Your task to perform on an android device: Clear the shopping cart on ebay.com. Search for "lenovo thinkpad" on ebay.com, select the first entry, add it to the cart, then select checkout. Image 0: 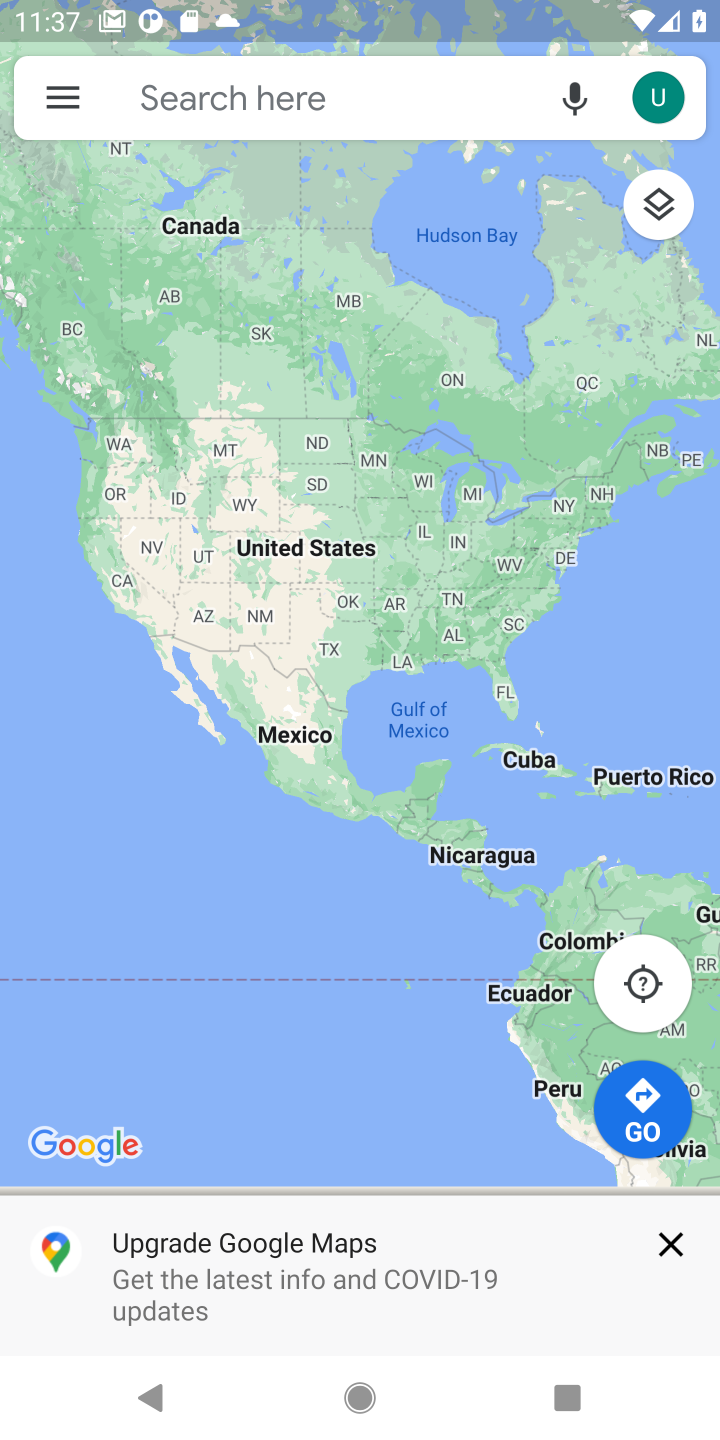
Step 0: press home button
Your task to perform on an android device: Clear the shopping cart on ebay.com. Search for "lenovo thinkpad" on ebay.com, select the first entry, add it to the cart, then select checkout. Image 1: 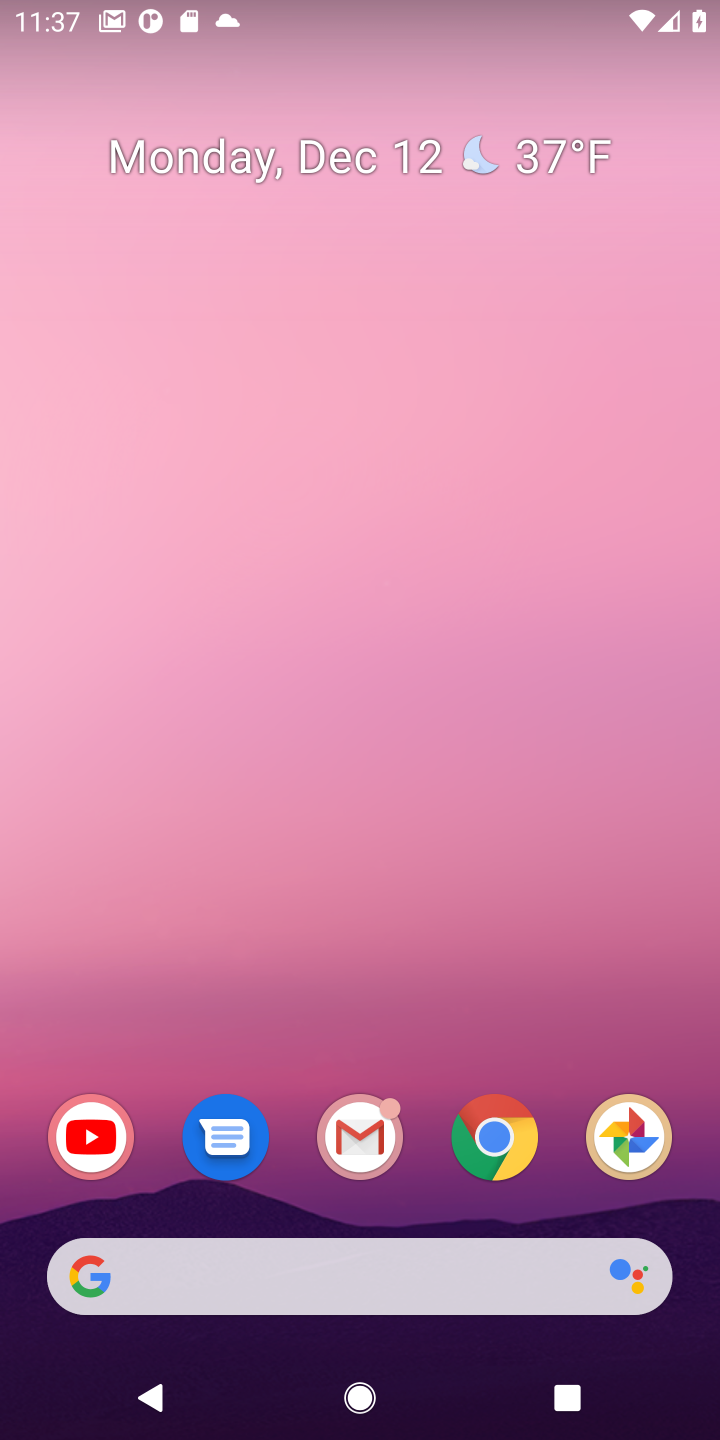
Step 1: click (371, 1289)
Your task to perform on an android device: Clear the shopping cart on ebay.com. Search for "lenovo thinkpad" on ebay.com, select the first entry, add it to the cart, then select checkout. Image 2: 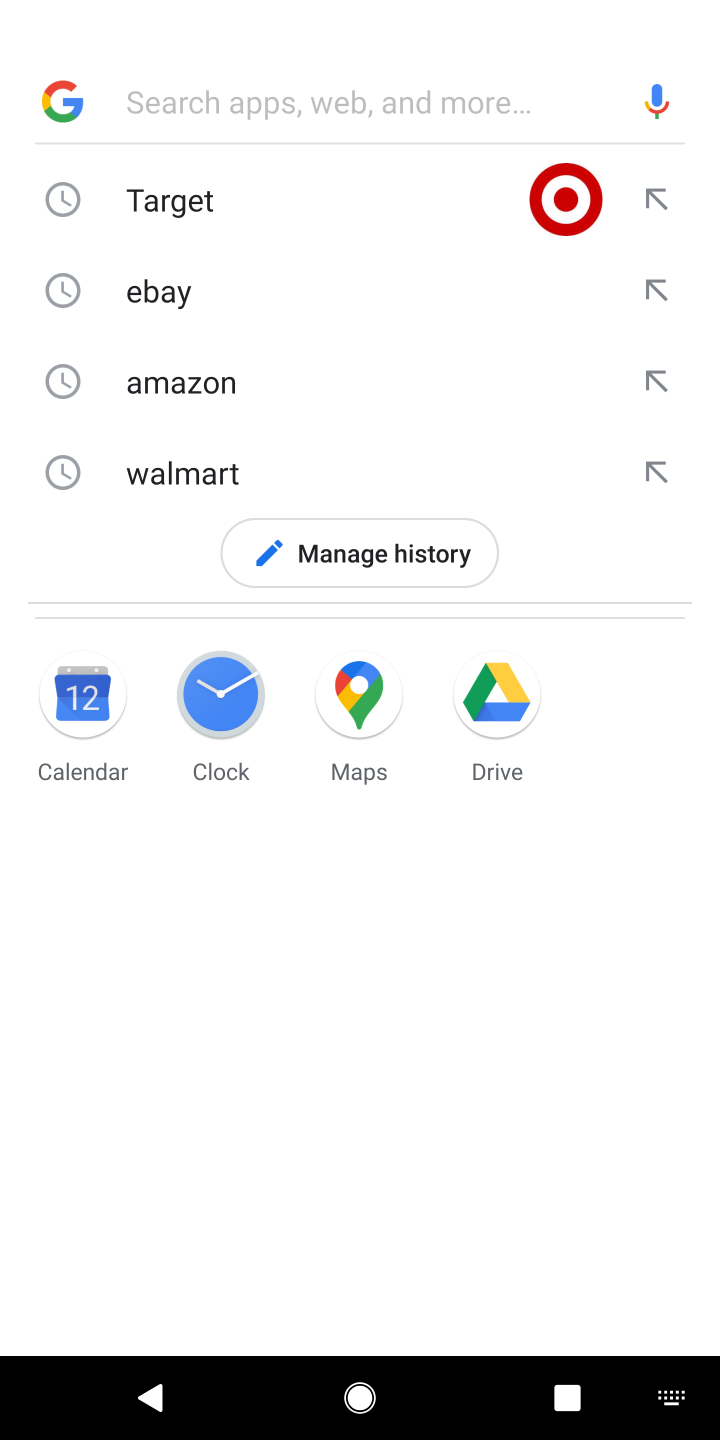
Step 2: click (292, 304)
Your task to perform on an android device: Clear the shopping cart on ebay.com. Search for "lenovo thinkpad" on ebay.com, select the first entry, add it to the cart, then select checkout. Image 3: 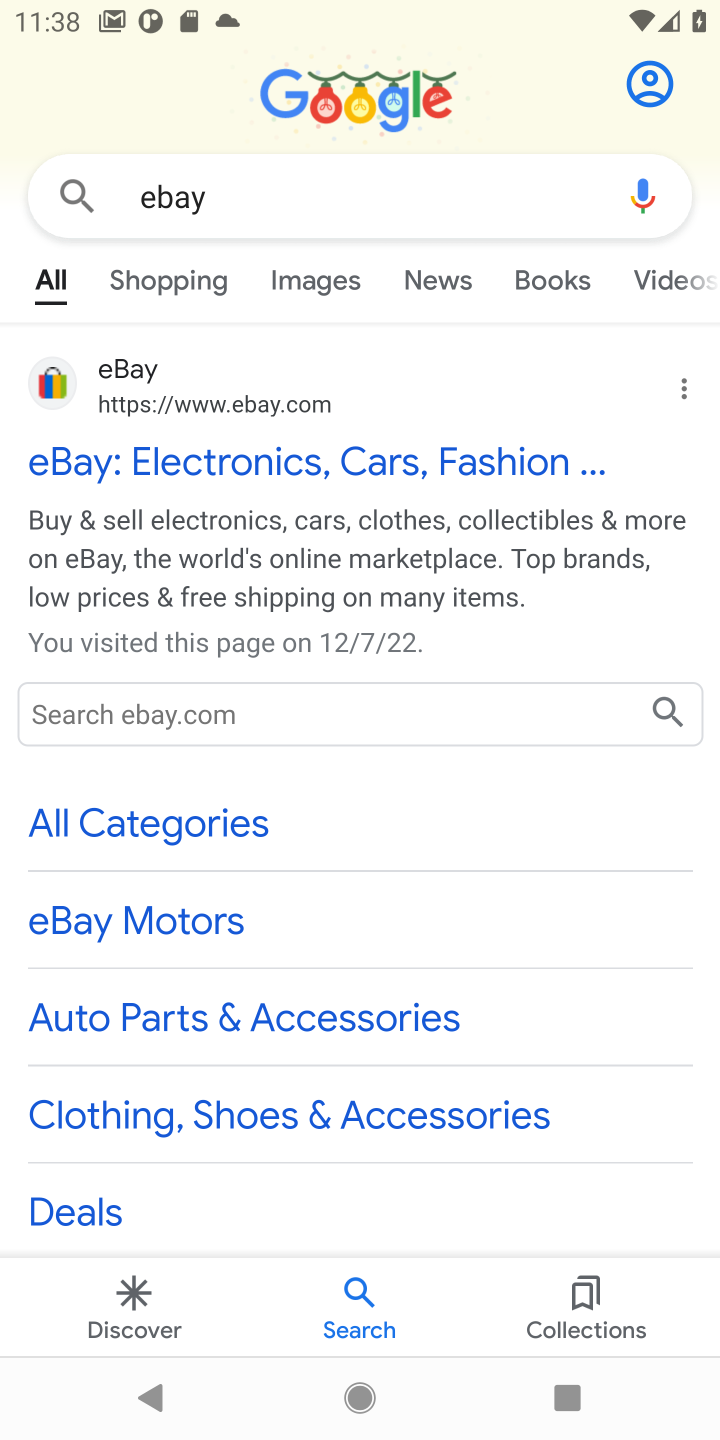
Step 3: click (206, 461)
Your task to perform on an android device: Clear the shopping cart on ebay.com. Search for "lenovo thinkpad" on ebay.com, select the first entry, add it to the cart, then select checkout. Image 4: 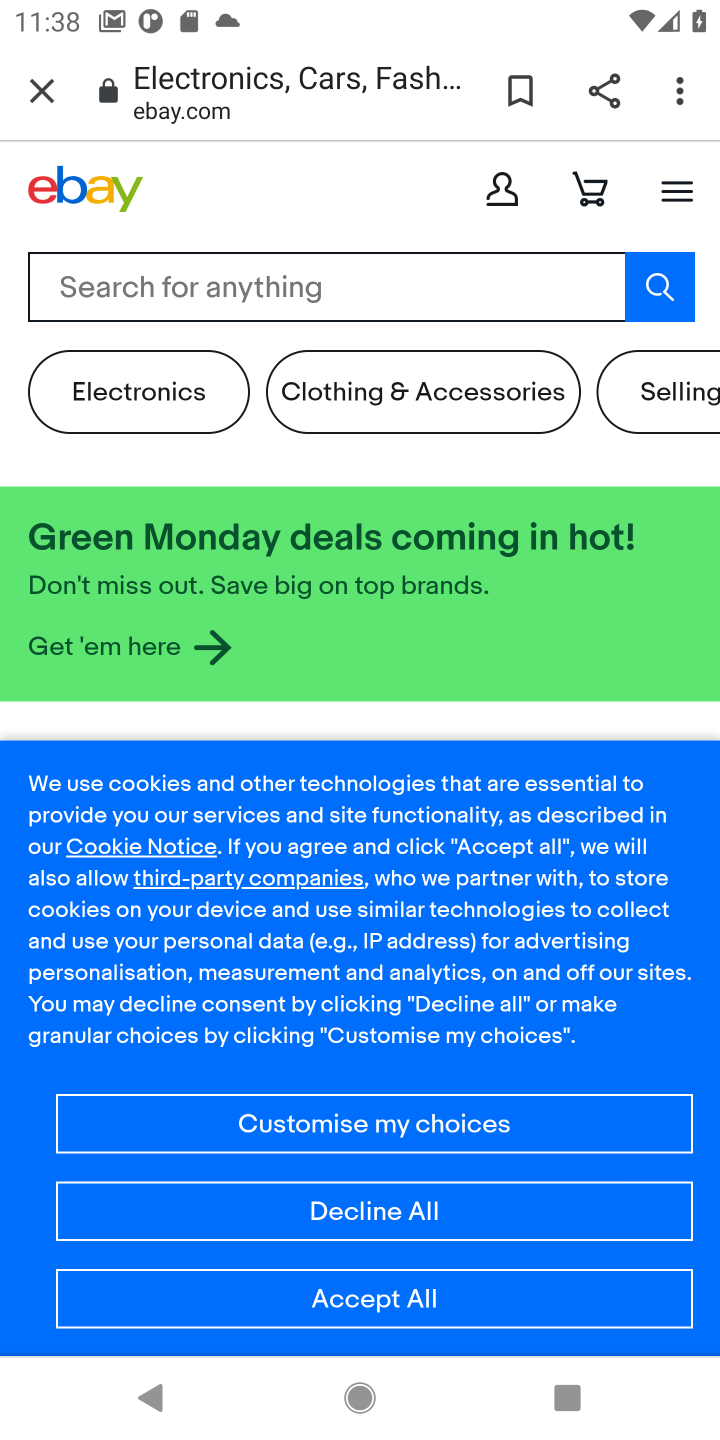
Step 4: click (358, 271)
Your task to perform on an android device: Clear the shopping cart on ebay.com. Search for "lenovo thinkpad" on ebay.com, select the first entry, add it to the cart, then select checkout. Image 5: 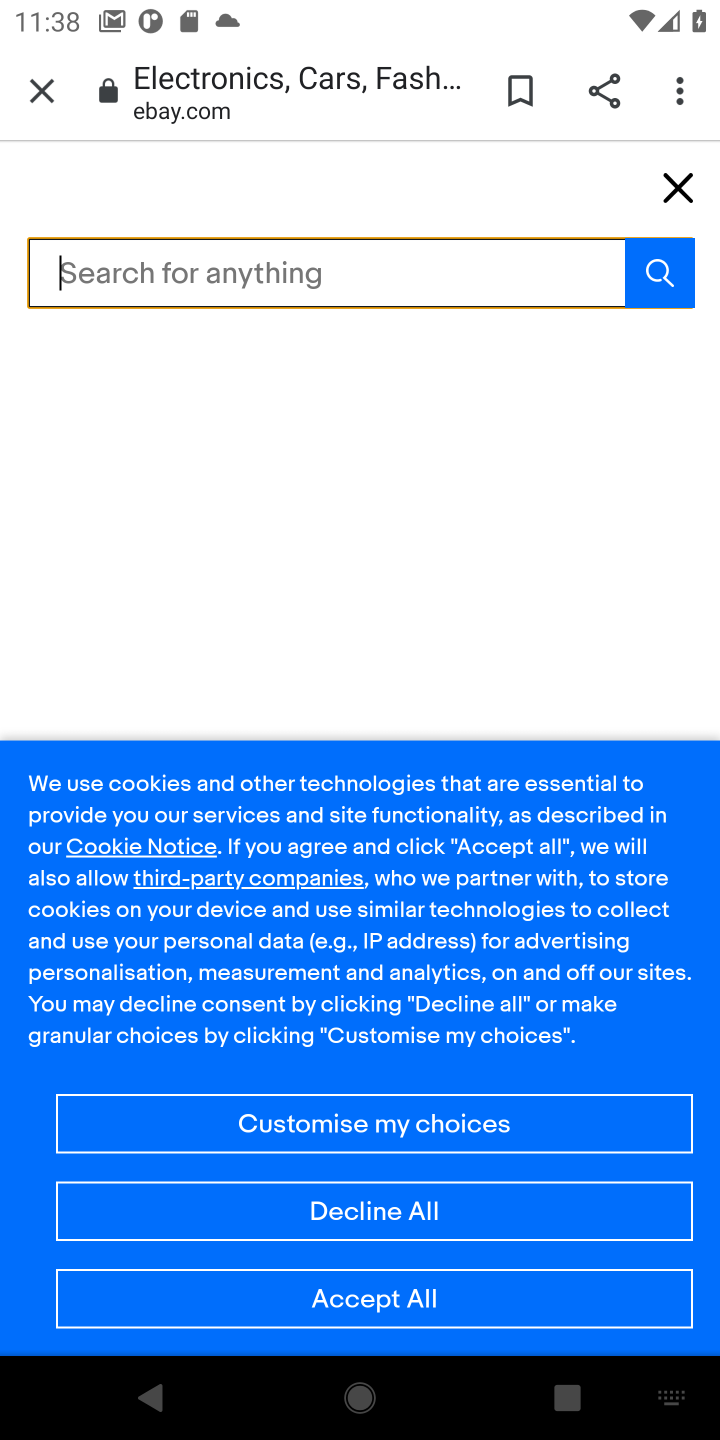
Step 5: type "lenovo thinkpad"
Your task to perform on an android device: Clear the shopping cart on ebay.com. Search for "lenovo thinkpad" on ebay.com, select the first entry, add it to the cart, then select checkout. Image 6: 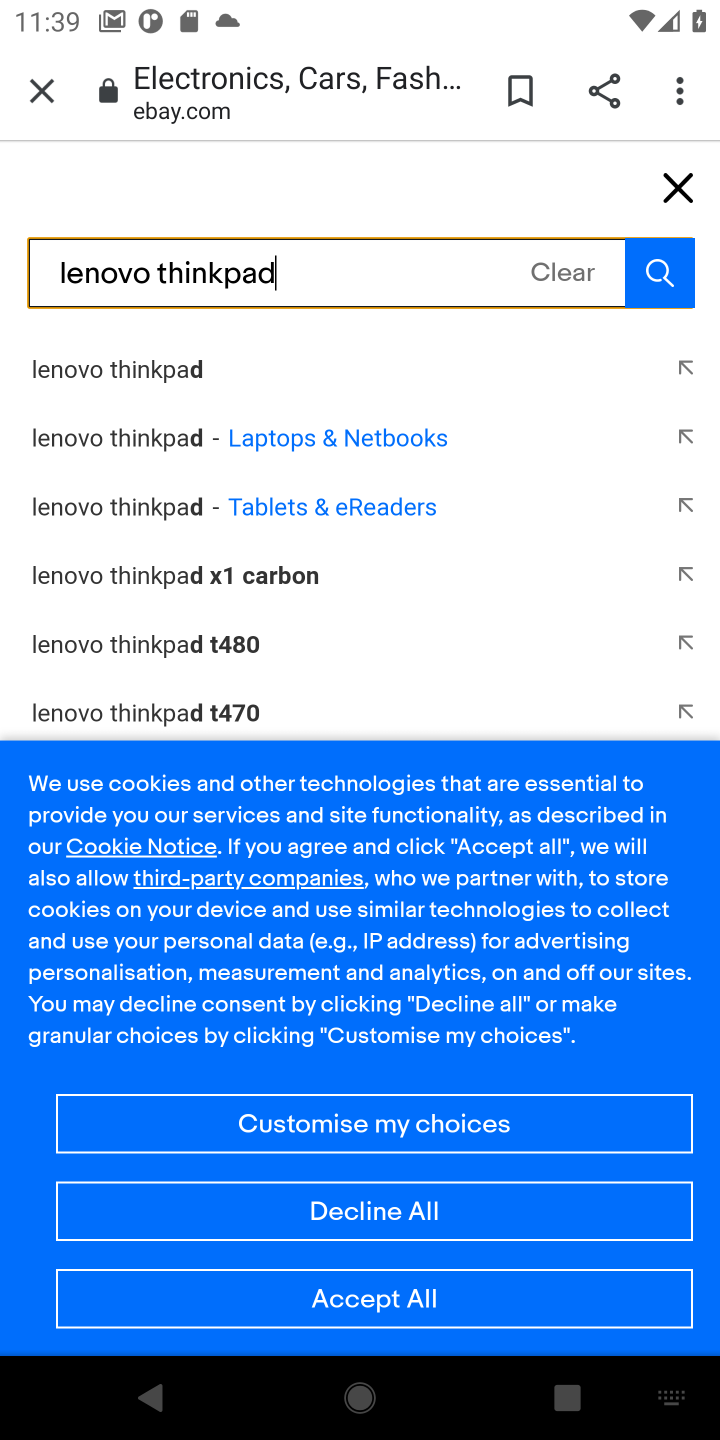
Step 6: click (662, 282)
Your task to perform on an android device: Clear the shopping cart on ebay.com. Search for "lenovo thinkpad" on ebay.com, select the first entry, add it to the cart, then select checkout. Image 7: 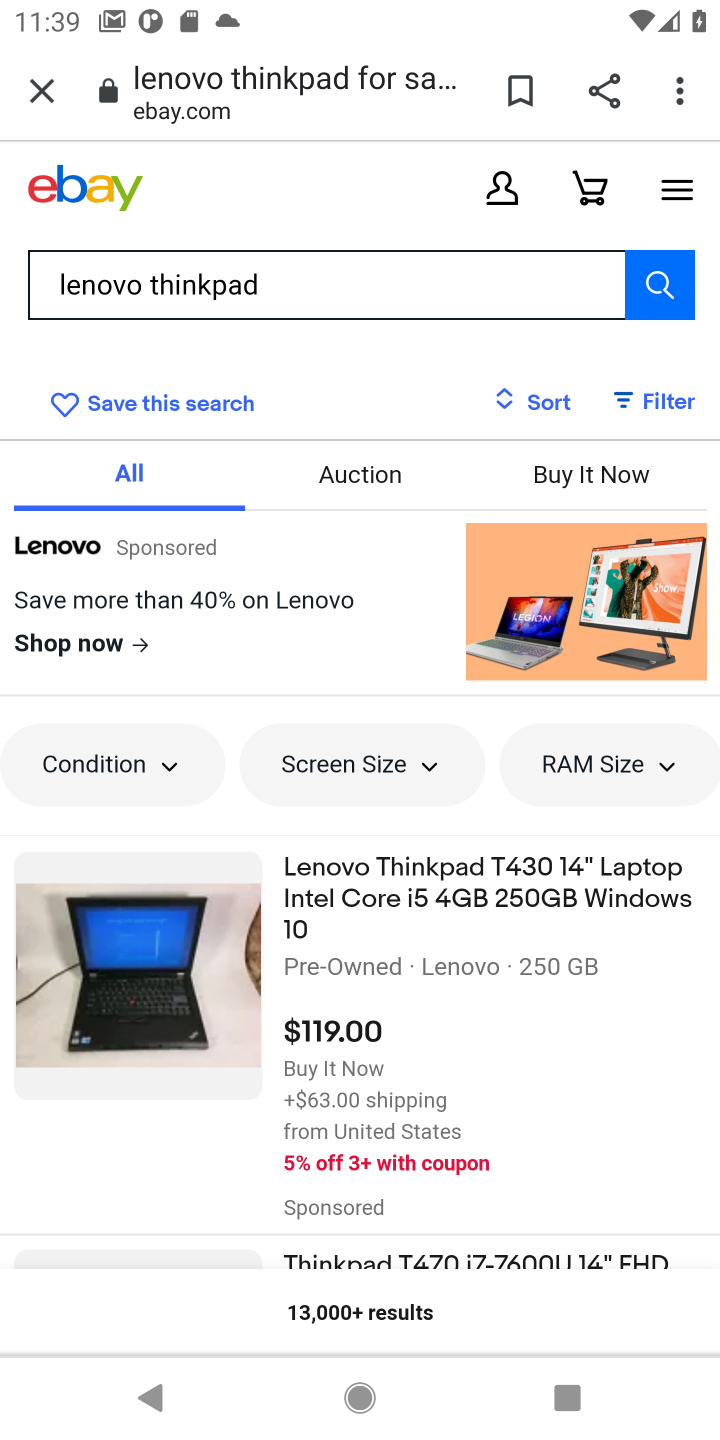
Step 7: click (493, 927)
Your task to perform on an android device: Clear the shopping cart on ebay.com. Search for "lenovo thinkpad" on ebay.com, select the first entry, add it to the cart, then select checkout. Image 8: 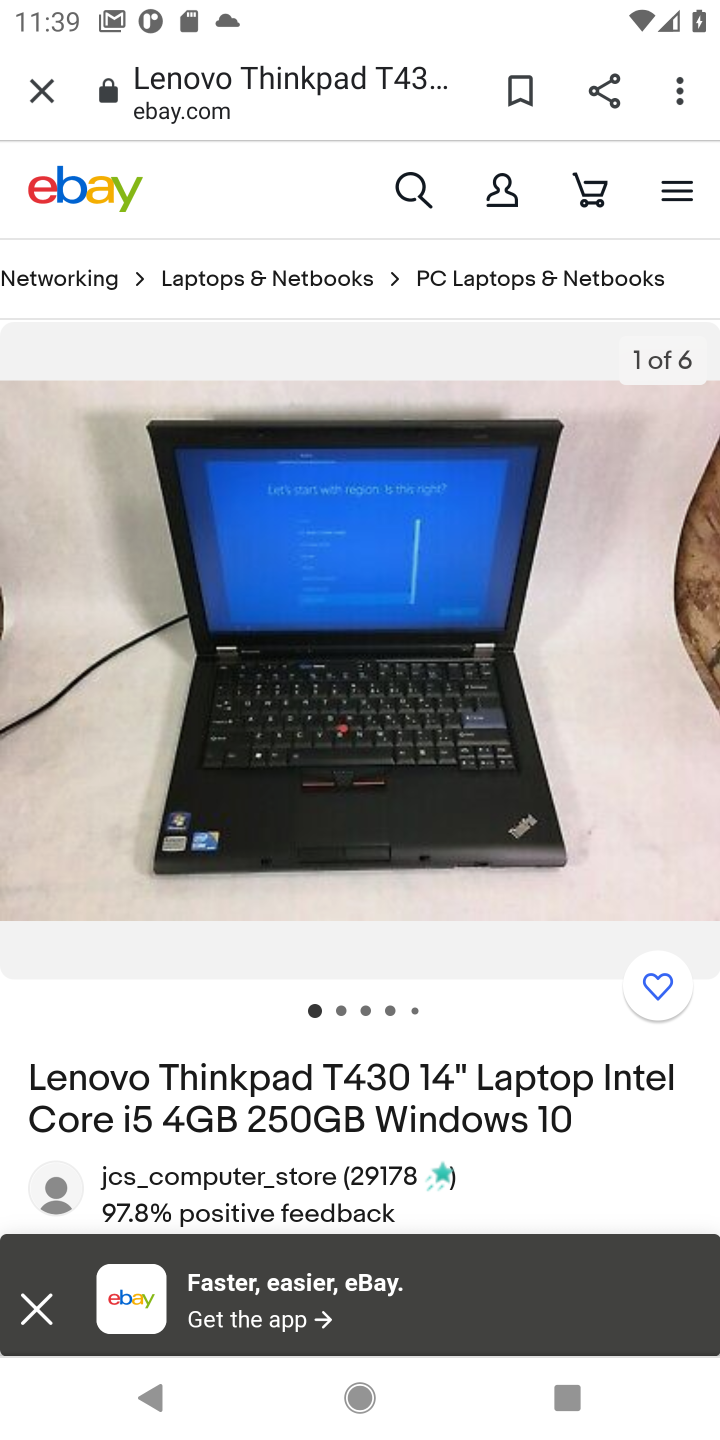
Step 8: drag from (367, 1152) to (383, 568)
Your task to perform on an android device: Clear the shopping cart on ebay.com. Search for "lenovo thinkpad" on ebay.com, select the first entry, add it to the cart, then select checkout. Image 9: 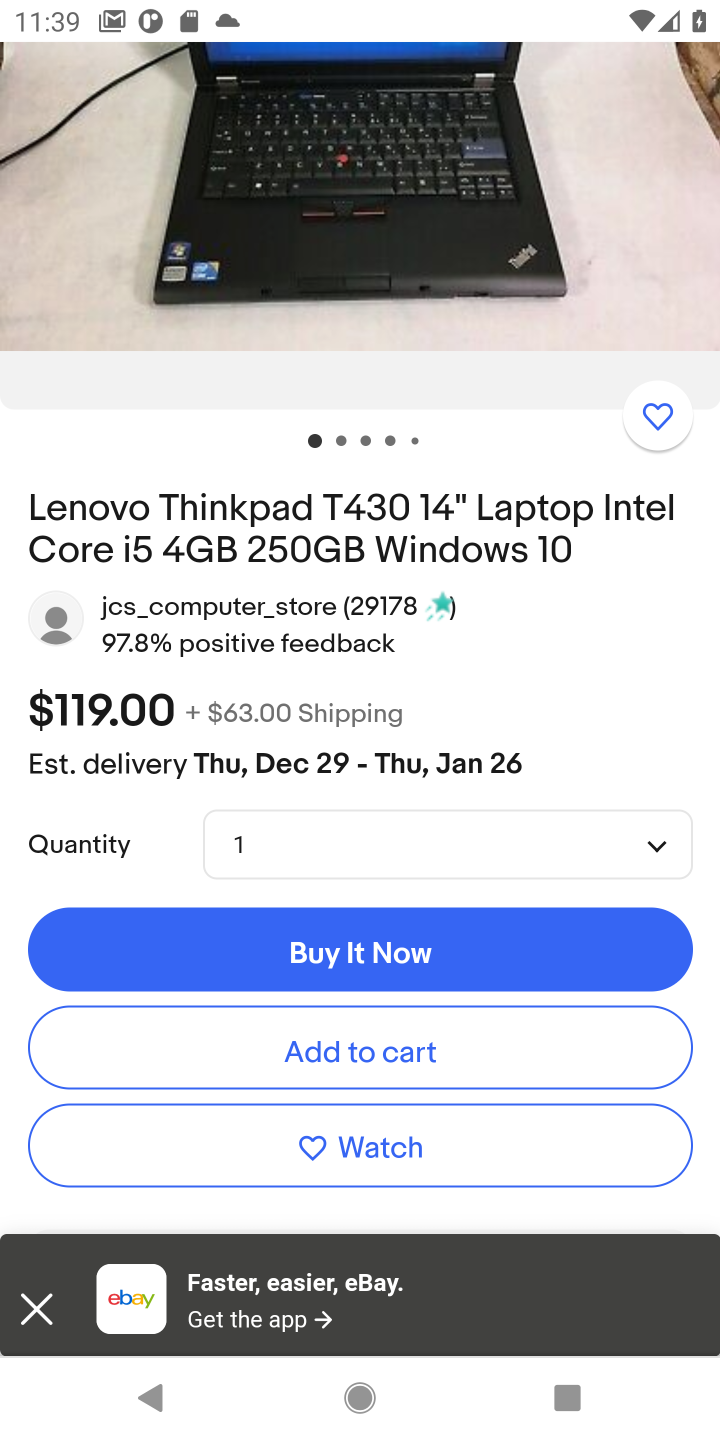
Step 9: click (350, 1031)
Your task to perform on an android device: Clear the shopping cart on ebay.com. Search for "lenovo thinkpad" on ebay.com, select the first entry, add it to the cart, then select checkout. Image 10: 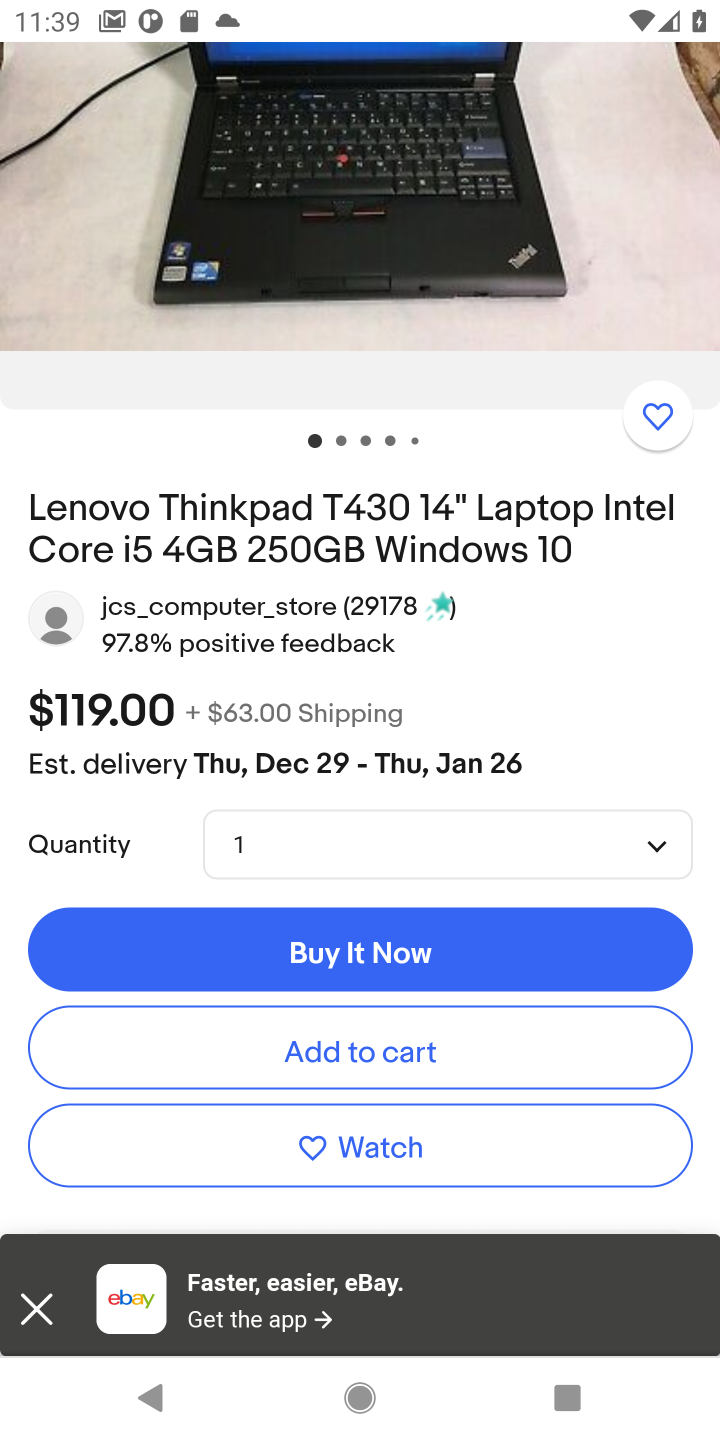
Step 10: task complete